Your task to perform on an android device: turn on airplane mode Image 0: 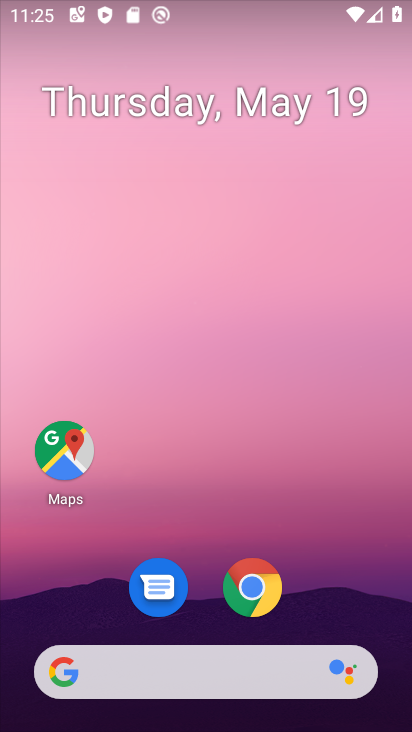
Step 0: drag from (267, 687) to (159, 7)
Your task to perform on an android device: turn on airplane mode Image 1: 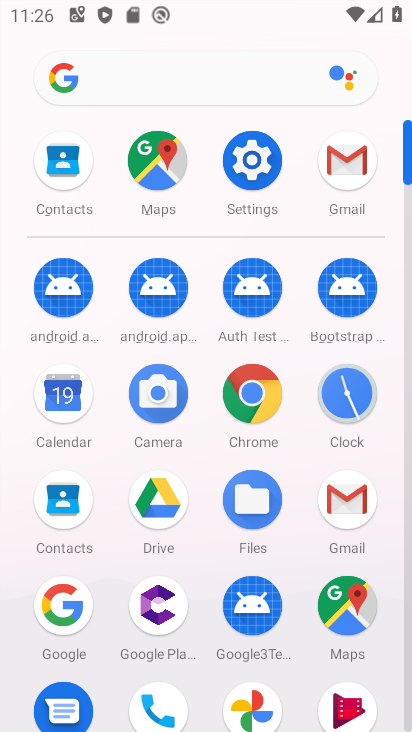
Step 1: click (243, 158)
Your task to perform on an android device: turn on airplane mode Image 2: 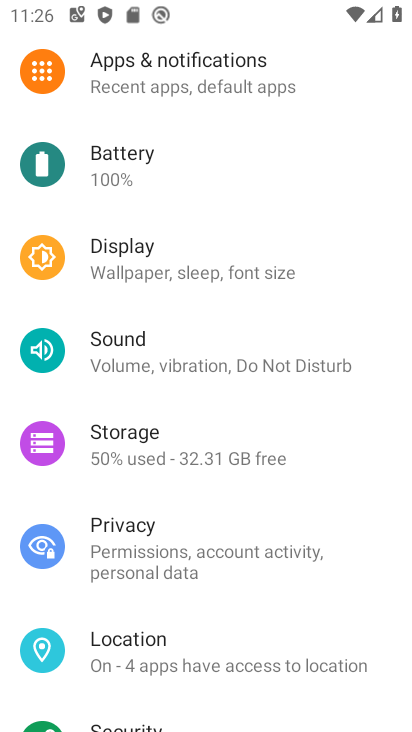
Step 2: drag from (230, 233) to (250, 696)
Your task to perform on an android device: turn on airplane mode Image 3: 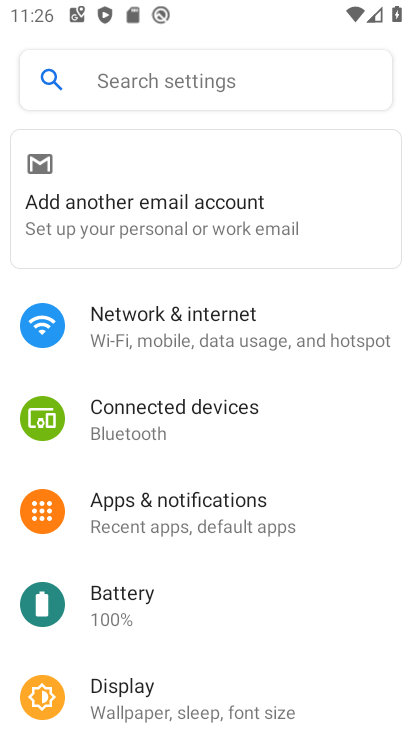
Step 3: click (226, 317)
Your task to perform on an android device: turn on airplane mode Image 4: 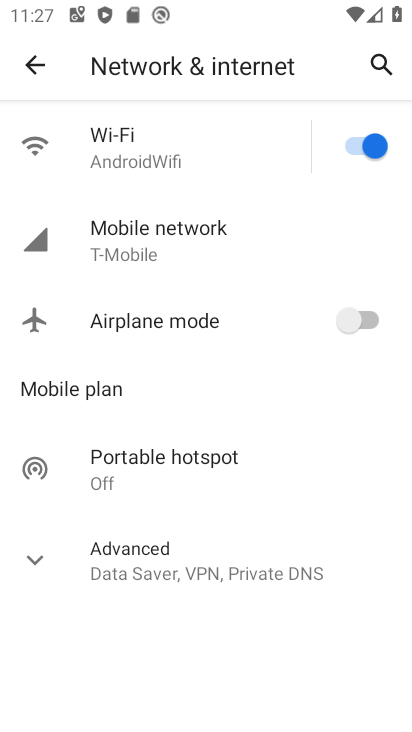
Step 4: click (355, 318)
Your task to perform on an android device: turn on airplane mode Image 5: 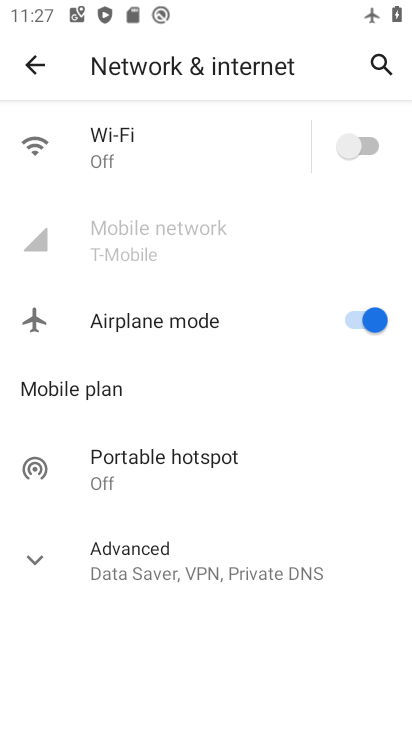
Step 5: task complete